Your task to perform on an android device: turn on notifications settings in the gmail app Image 0: 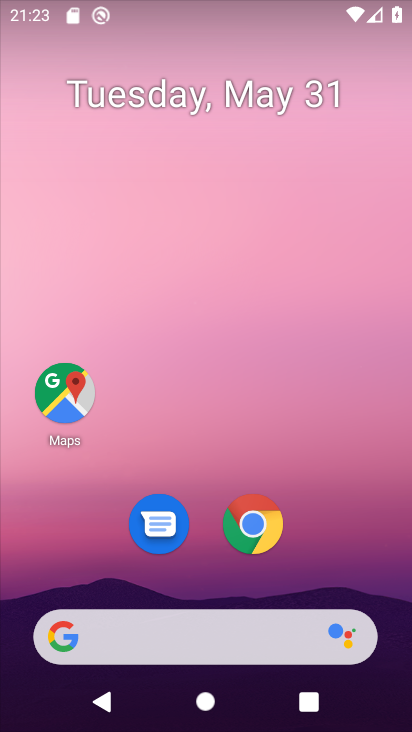
Step 0: drag from (323, 542) to (268, 1)
Your task to perform on an android device: turn on notifications settings in the gmail app Image 1: 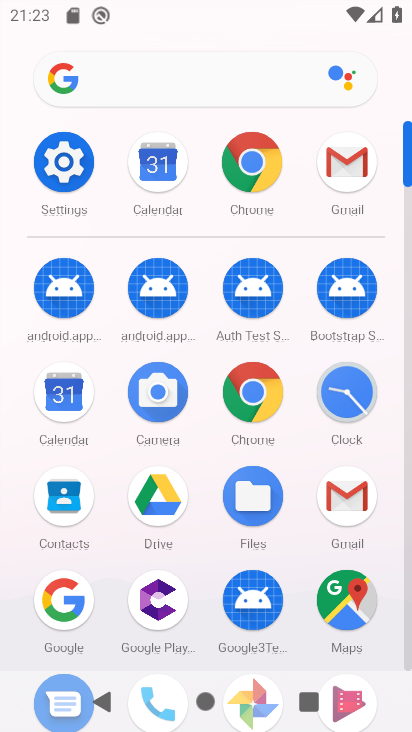
Step 1: click (343, 159)
Your task to perform on an android device: turn on notifications settings in the gmail app Image 2: 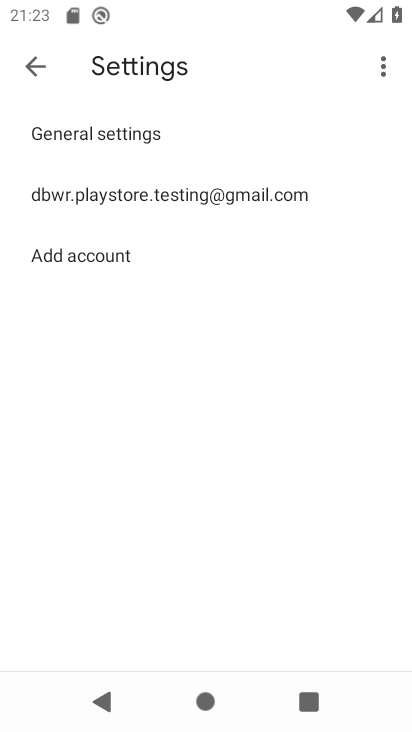
Step 2: click (271, 197)
Your task to perform on an android device: turn on notifications settings in the gmail app Image 3: 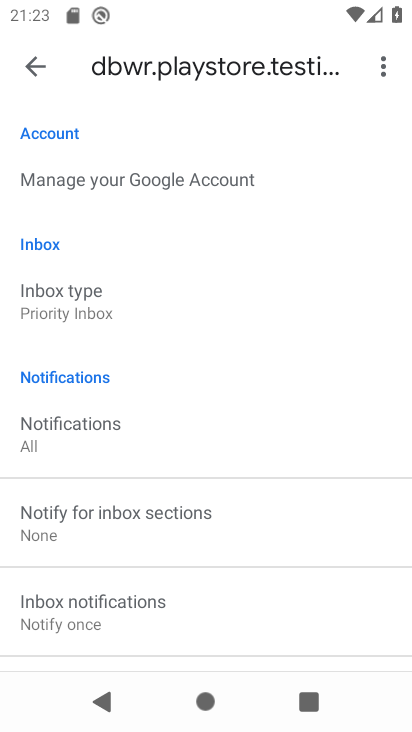
Step 3: drag from (188, 430) to (201, 147)
Your task to perform on an android device: turn on notifications settings in the gmail app Image 4: 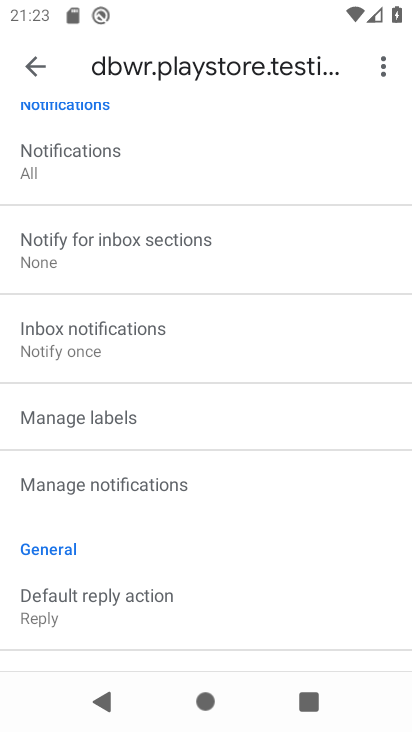
Step 4: click (172, 480)
Your task to perform on an android device: turn on notifications settings in the gmail app Image 5: 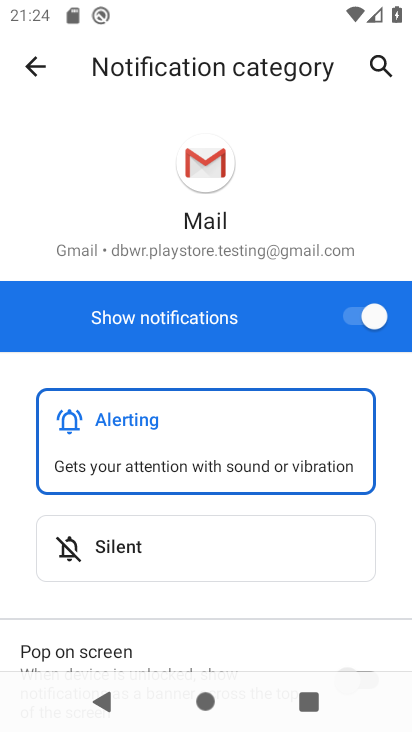
Step 5: task complete